Your task to perform on an android device: What is the news today? Image 0: 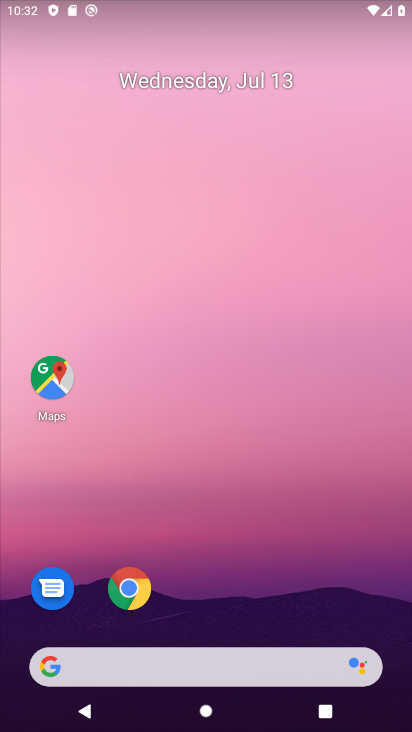
Step 0: drag from (245, 632) to (184, 176)
Your task to perform on an android device: What is the news today? Image 1: 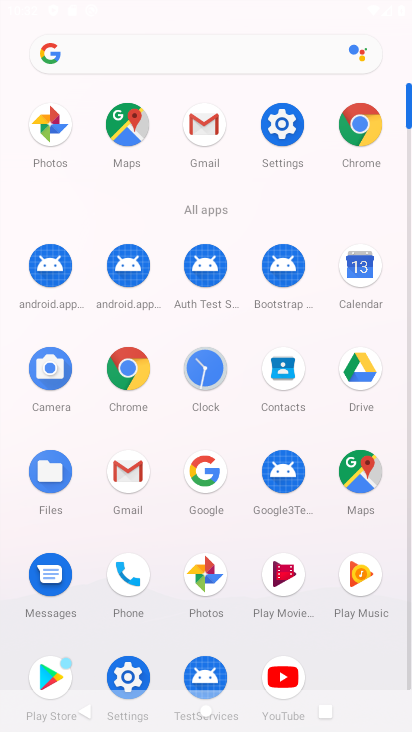
Step 1: click (374, 138)
Your task to perform on an android device: What is the news today? Image 2: 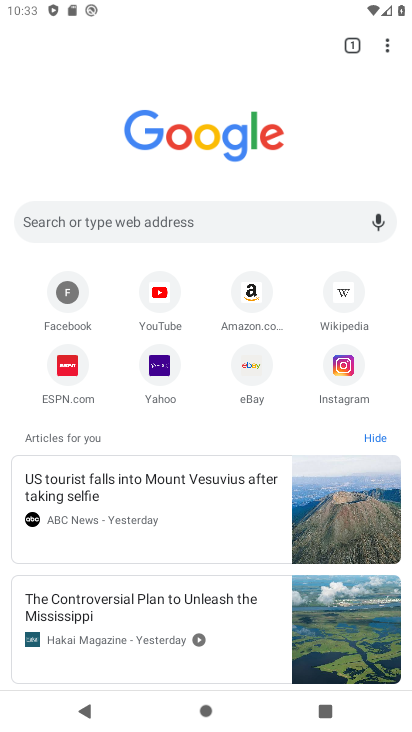
Step 2: click (270, 224)
Your task to perform on an android device: What is the news today? Image 3: 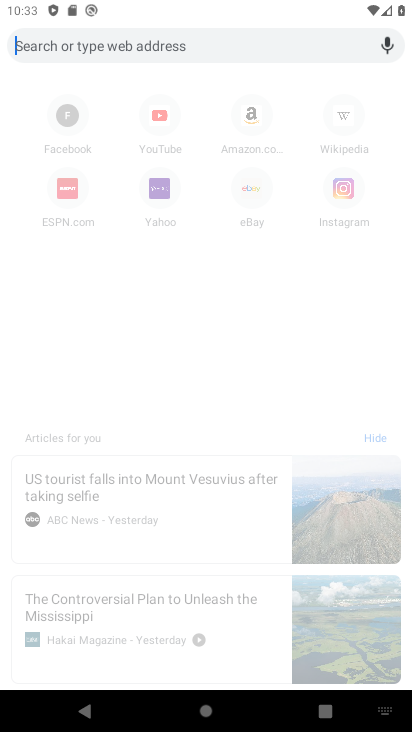
Step 3: type "What is the news today?"
Your task to perform on an android device: What is the news today? Image 4: 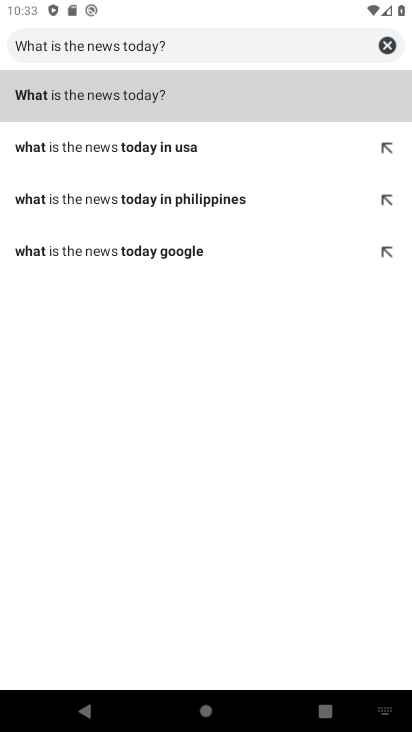
Step 4: click (79, 100)
Your task to perform on an android device: What is the news today? Image 5: 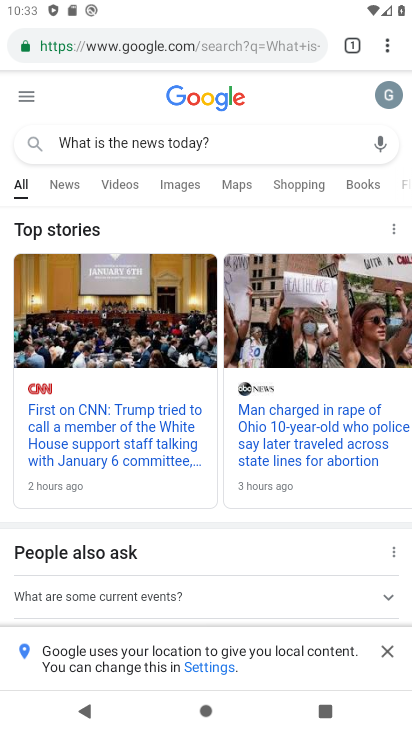
Step 5: task complete